Your task to perform on an android device: Show me popular videos on Youtube Image 0: 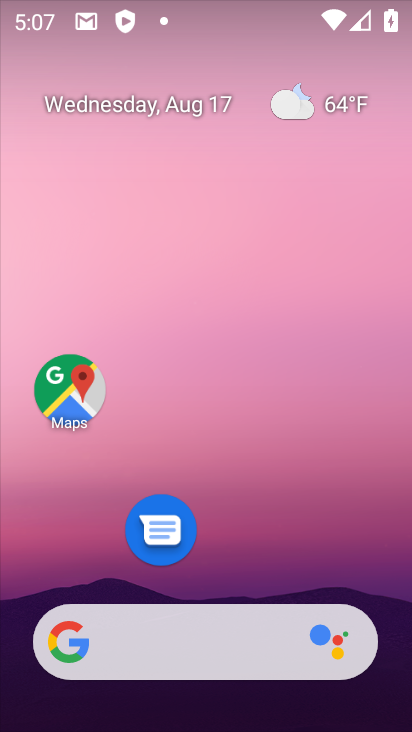
Step 0: drag from (202, 531) to (157, 13)
Your task to perform on an android device: Show me popular videos on Youtube Image 1: 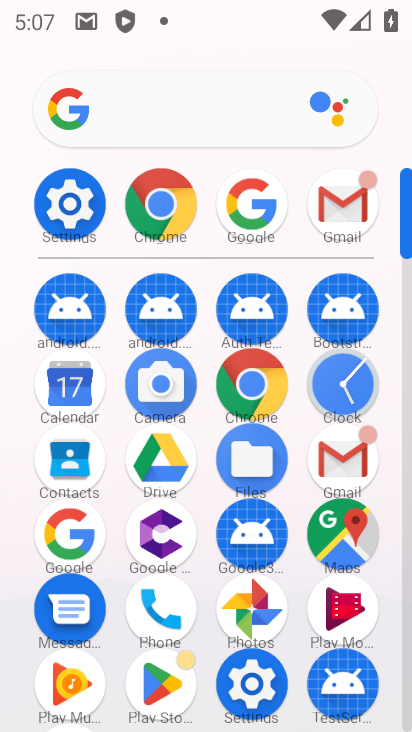
Step 1: drag from (206, 621) to (195, 257)
Your task to perform on an android device: Show me popular videos on Youtube Image 2: 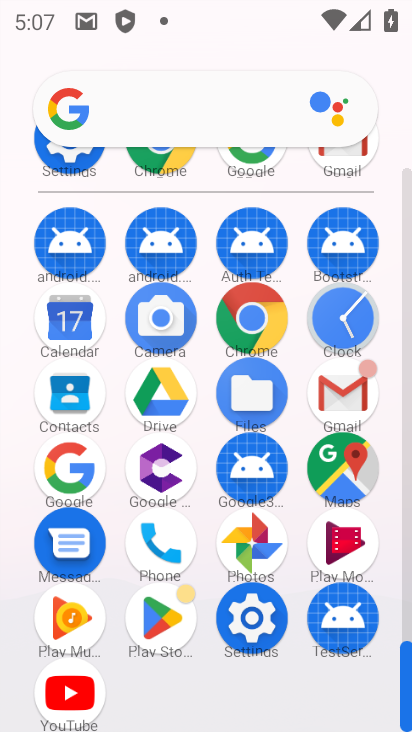
Step 2: click (63, 680)
Your task to perform on an android device: Show me popular videos on Youtube Image 3: 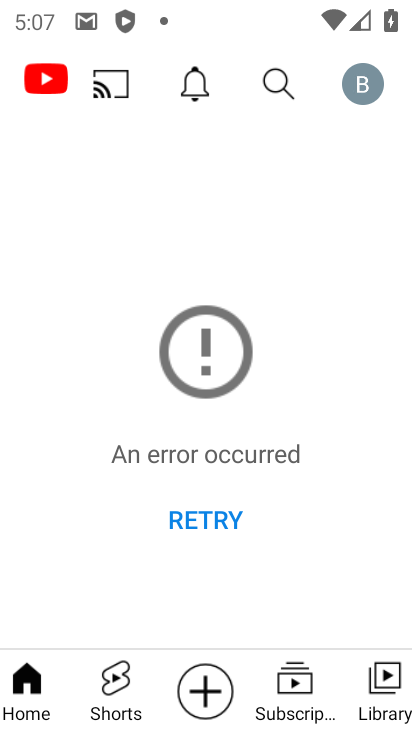
Step 3: click (17, 684)
Your task to perform on an android device: Show me popular videos on Youtube Image 4: 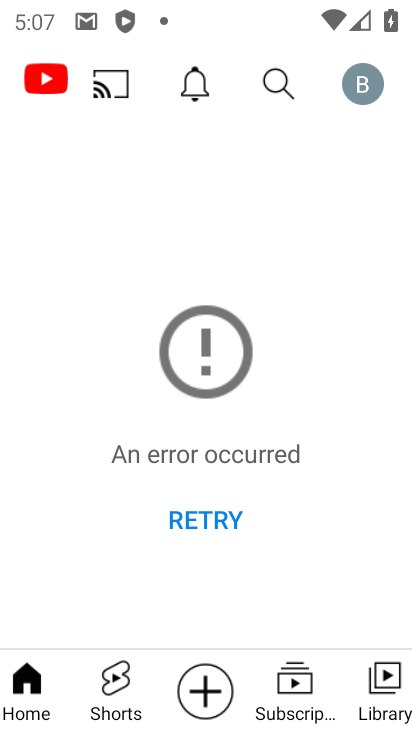
Step 4: task complete